Your task to perform on an android device: open app "WhatsApp Messenger" Image 0: 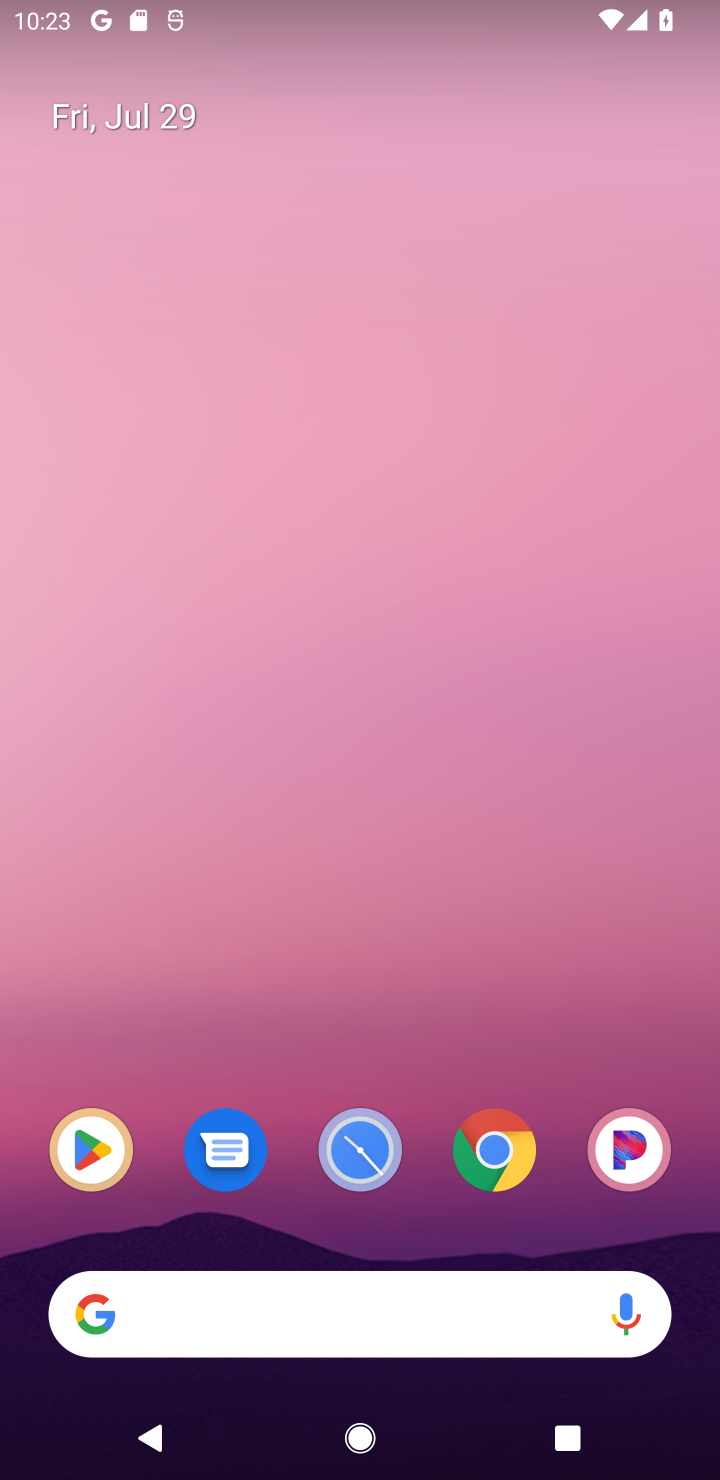
Step 0: drag from (349, 579) to (404, 52)
Your task to perform on an android device: open app "WhatsApp Messenger" Image 1: 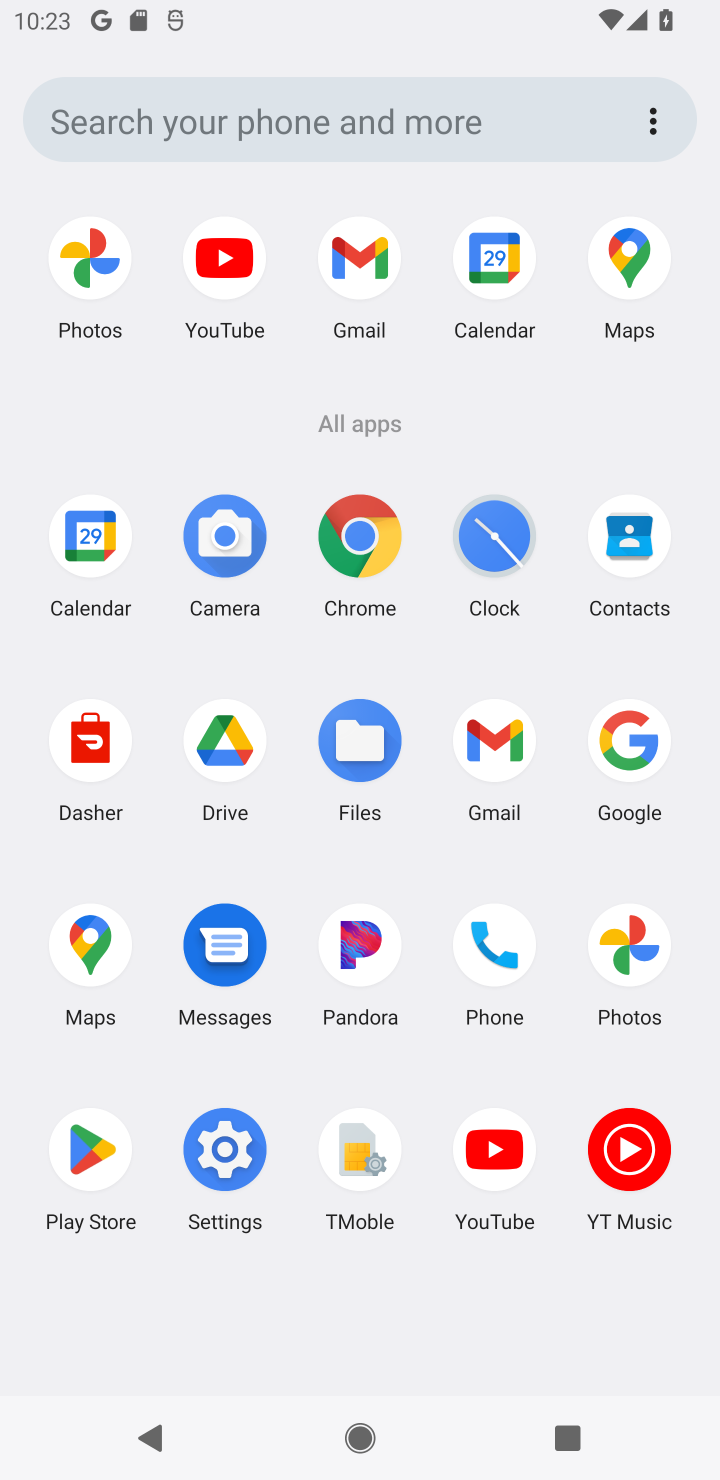
Step 1: click (117, 1146)
Your task to perform on an android device: open app "WhatsApp Messenger" Image 2: 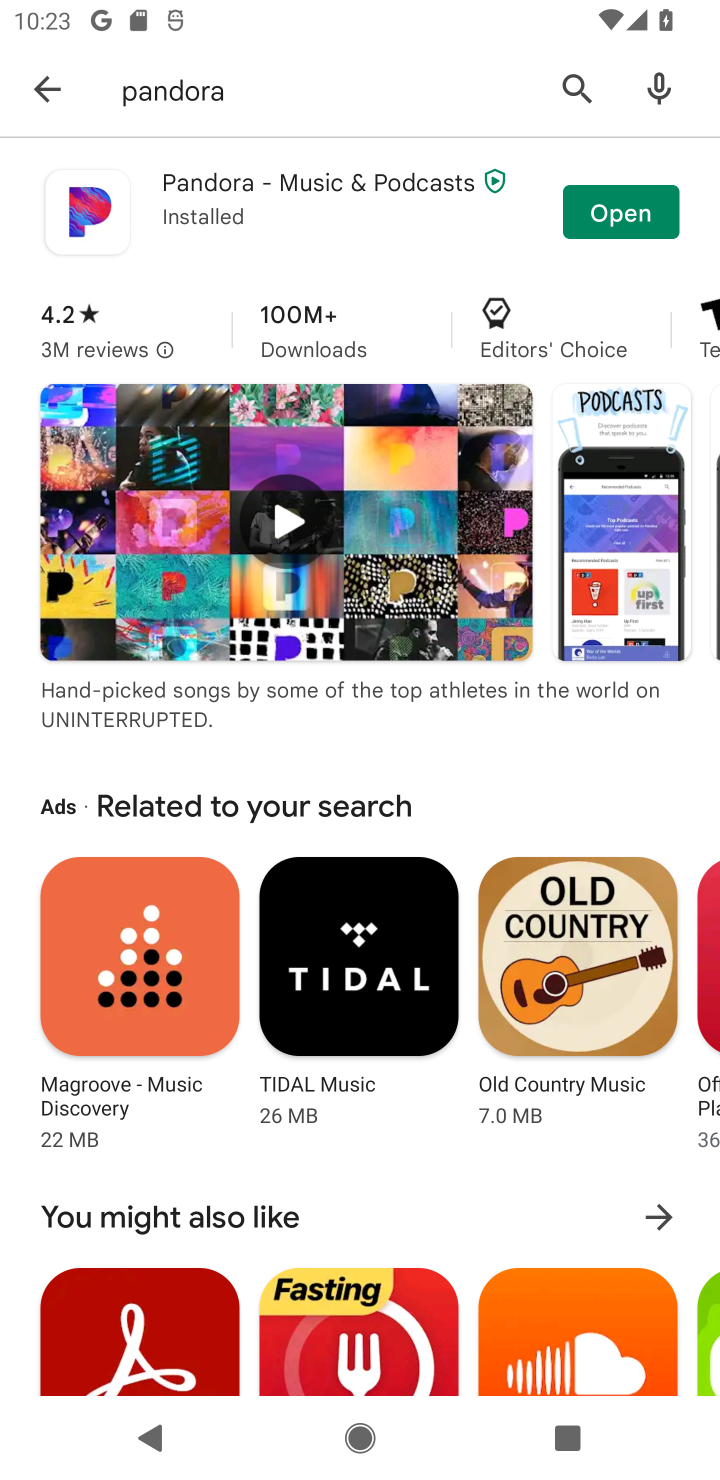
Step 2: click (392, 86)
Your task to perform on an android device: open app "WhatsApp Messenger" Image 3: 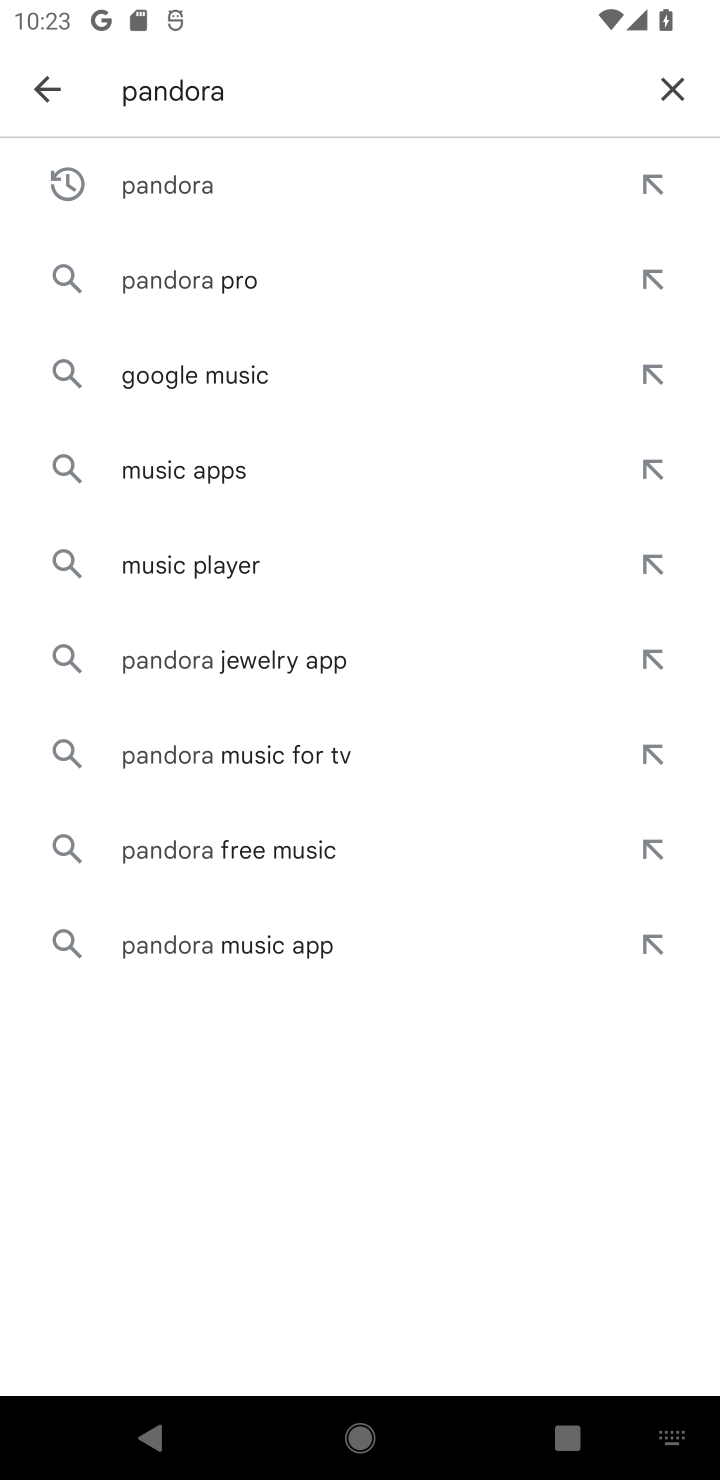
Step 3: click (662, 75)
Your task to perform on an android device: open app "WhatsApp Messenger" Image 4: 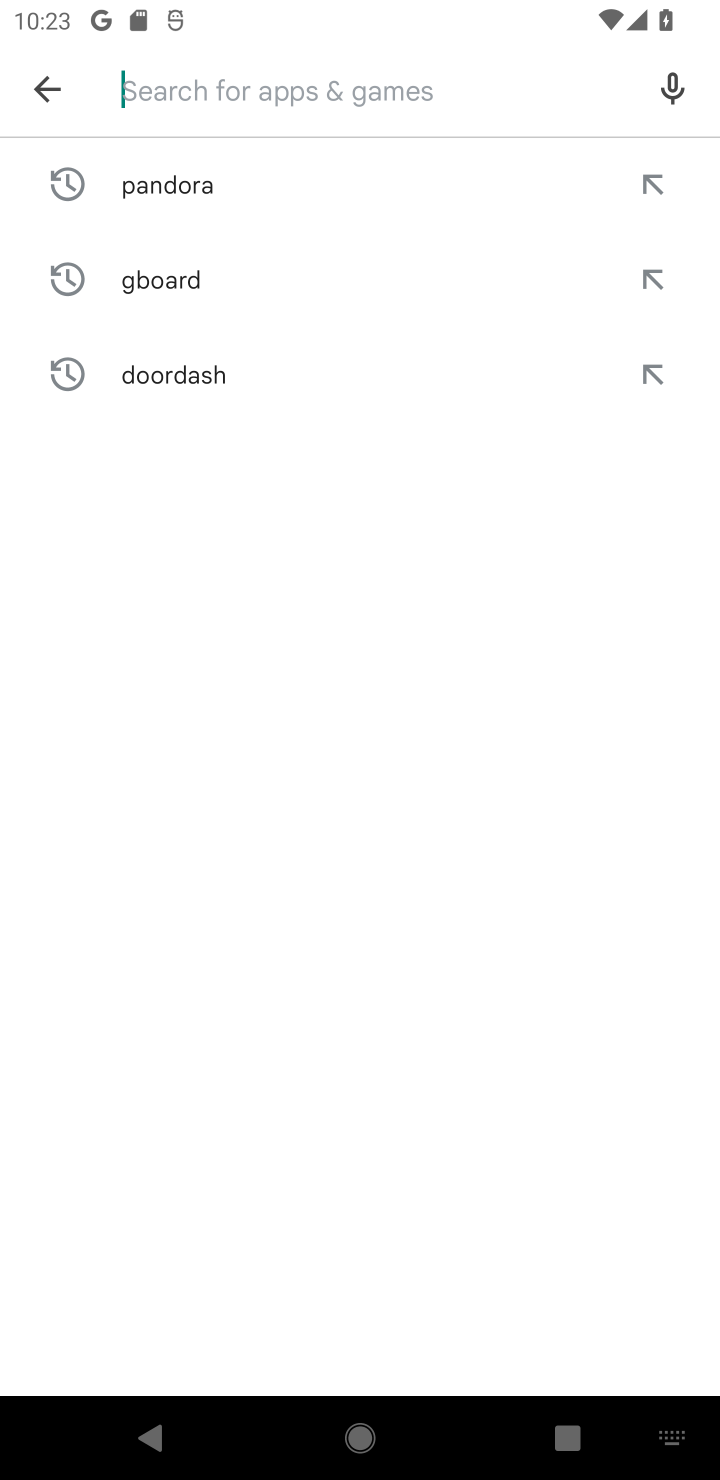
Step 4: click (287, 94)
Your task to perform on an android device: open app "WhatsApp Messenger" Image 5: 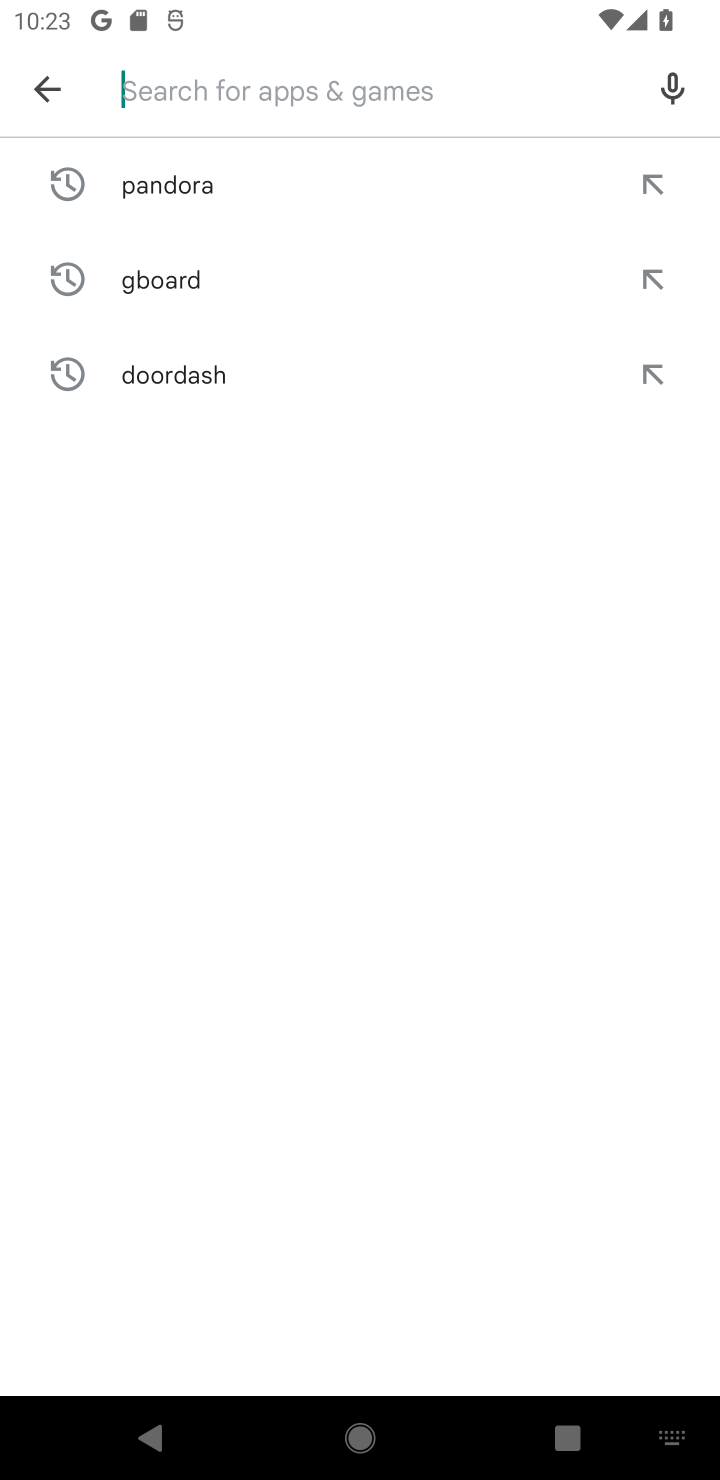
Step 5: type "whatsapp messenger"
Your task to perform on an android device: open app "WhatsApp Messenger" Image 6: 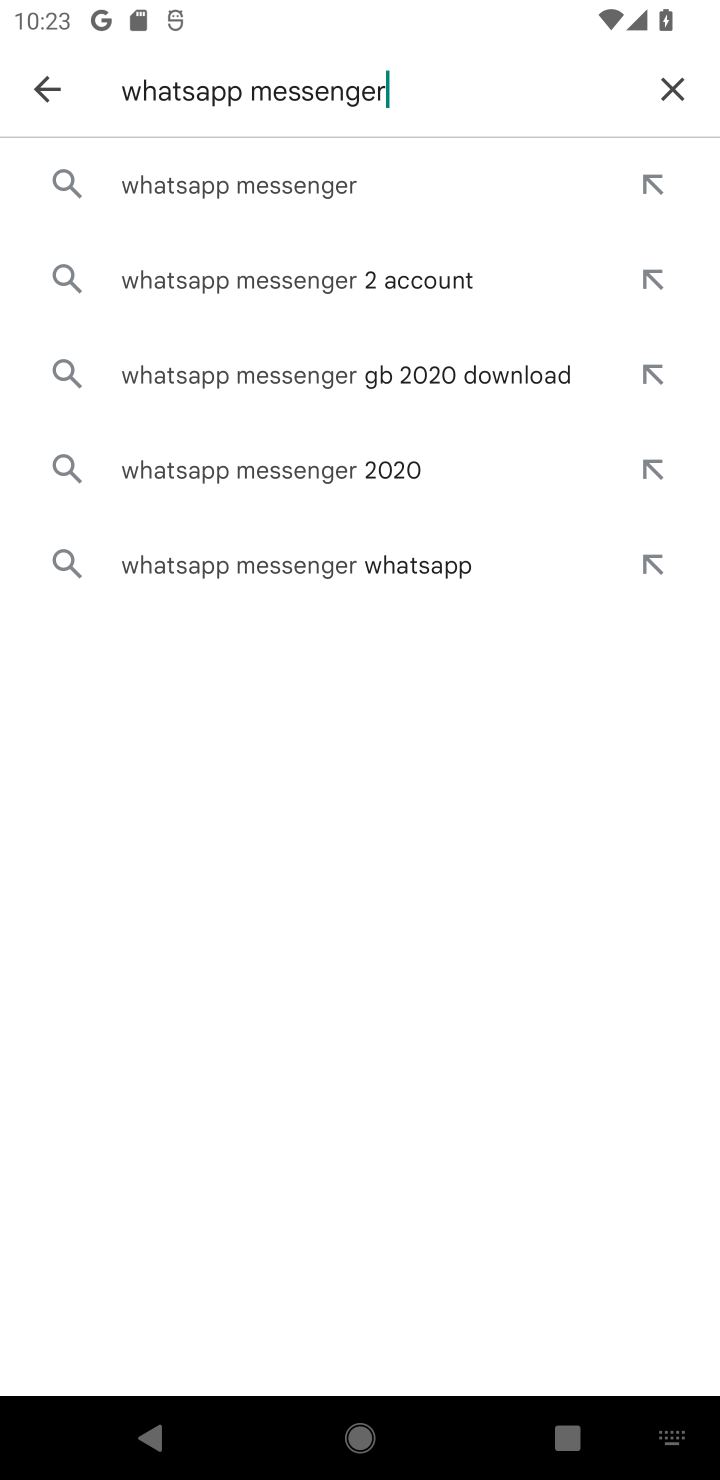
Step 6: click (324, 190)
Your task to perform on an android device: open app "WhatsApp Messenger" Image 7: 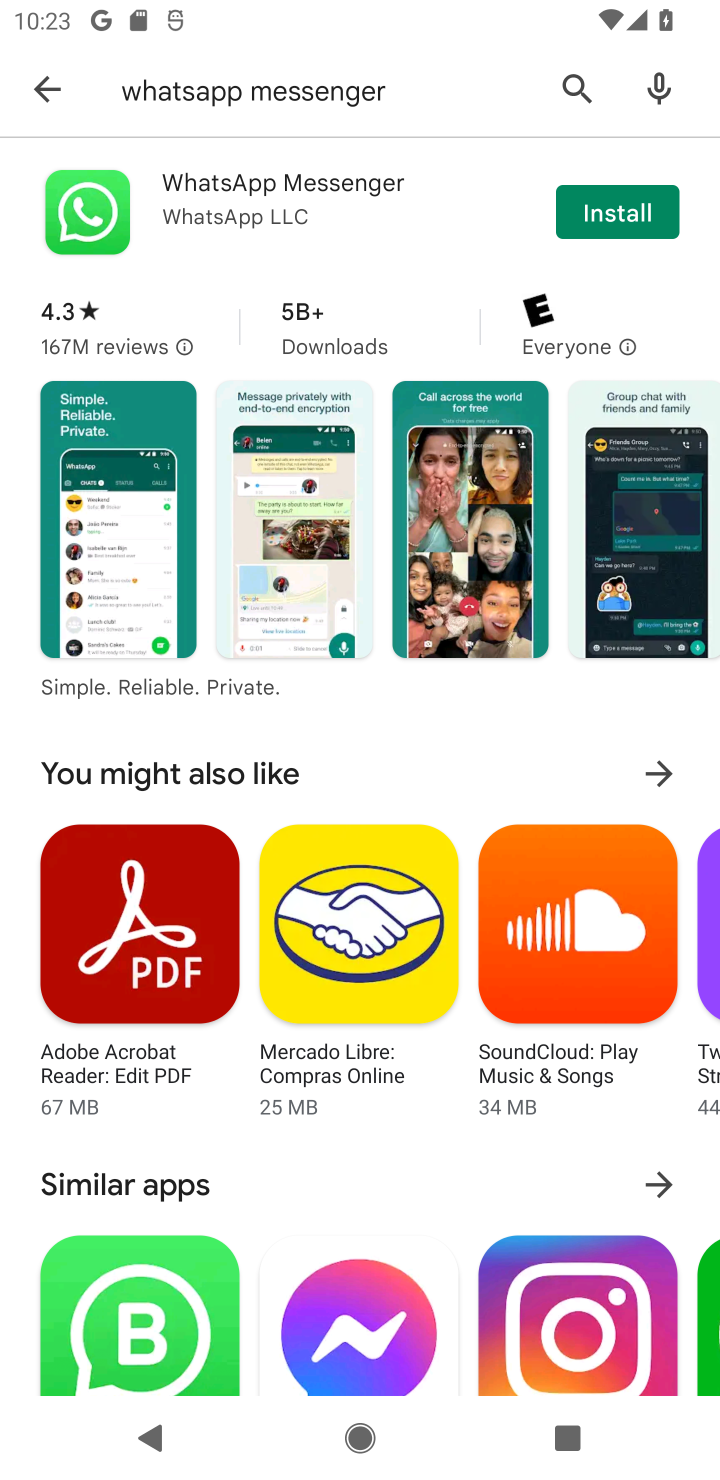
Step 7: task complete